Your task to perform on an android device: visit the assistant section in the google photos Image 0: 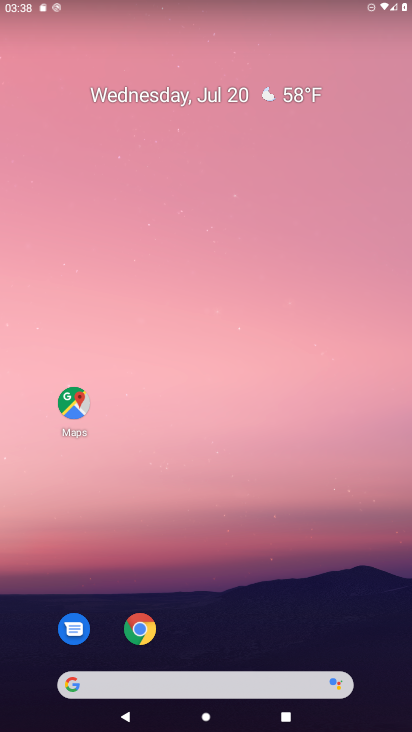
Step 0: drag from (251, 640) to (372, 22)
Your task to perform on an android device: visit the assistant section in the google photos Image 1: 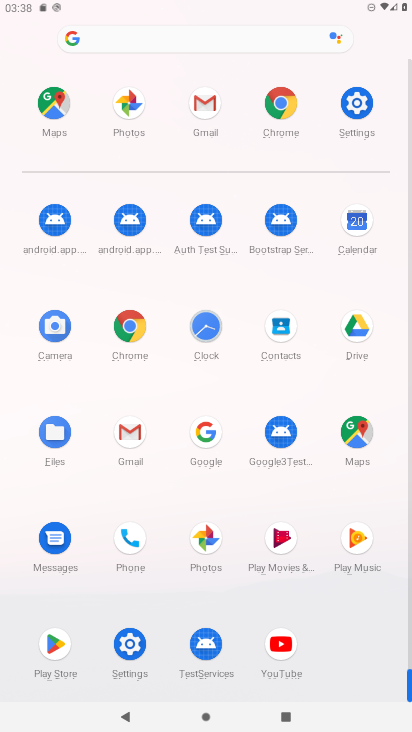
Step 1: click (212, 540)
Your task to perform on an android device: visit the assistant section in the google photos Image 2: 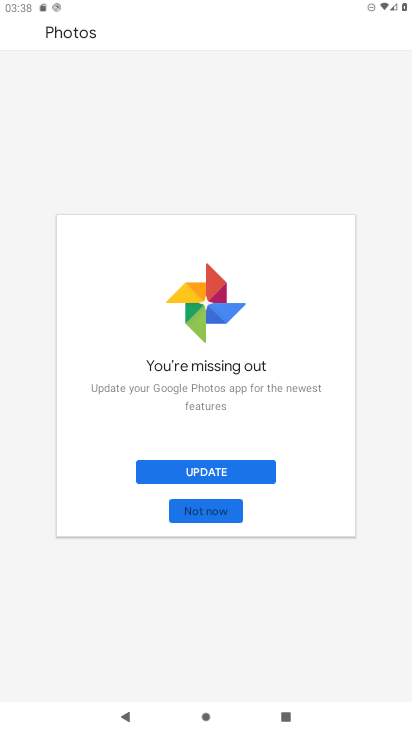
Step 2: click (207, 508)
Your task to perform on an android device: visit the assistant section in the google photos Image 3: 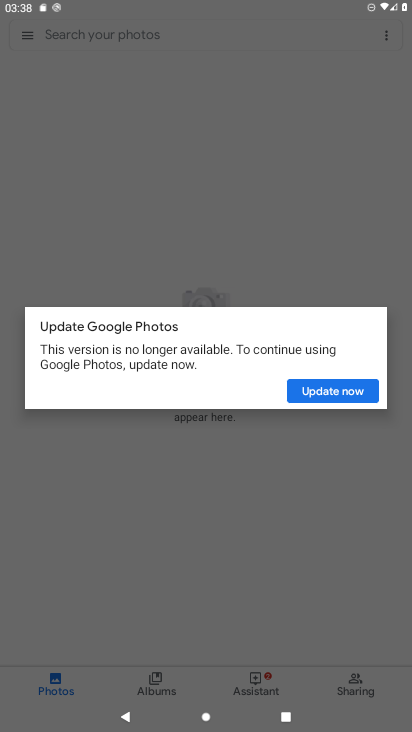
Step 3: click (315, 379)
Your task to perform on an android device: visit the assistant section in the google photos Image 4: 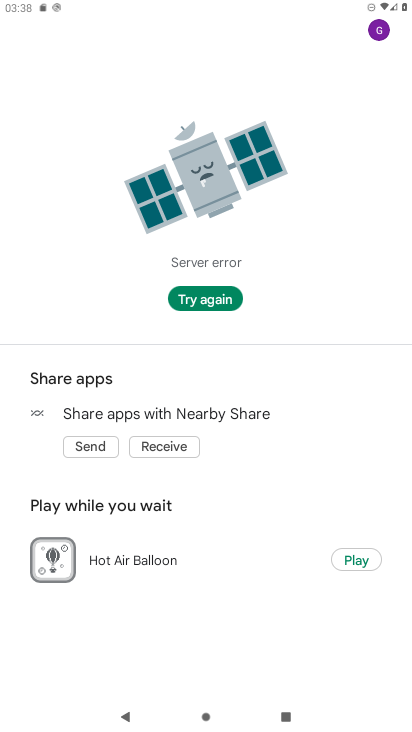
Step 4: click (215, 295)
Your task to perform on an android device: visit the assistant section in the google photos Image 5: 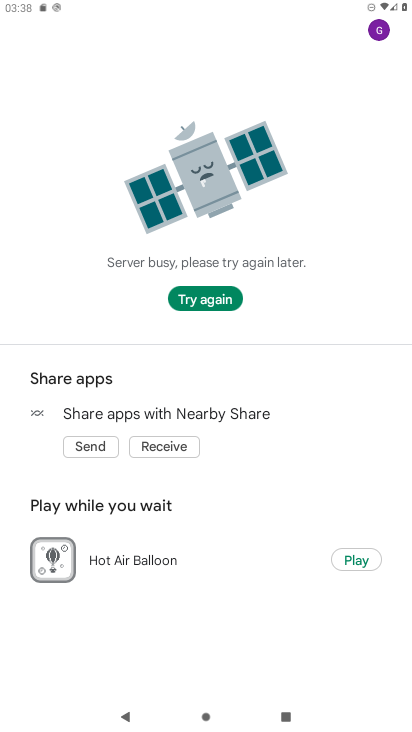
Step 5: task complete